Your task to perform on an android device: change the clock display to show seconds Image 0: 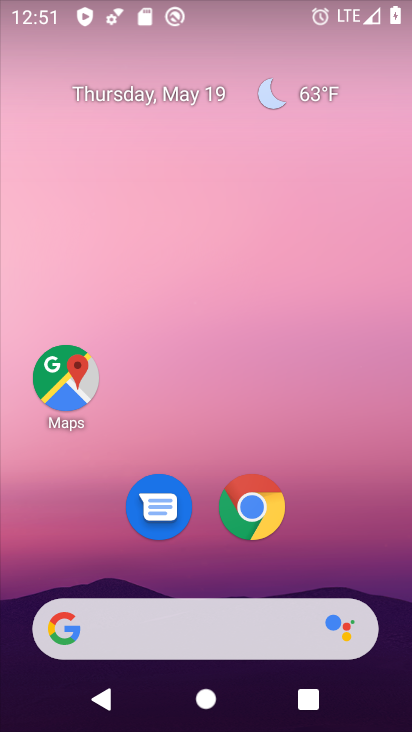
Step 0: drag from (252, 571) to (347, 129)
Your task to perform on an android device: change the clock display to show seconds Image 1: 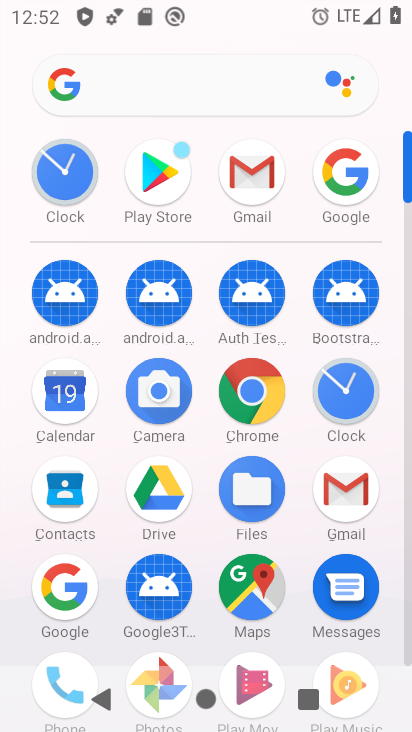
Step 1: click (346, 381)
Your task to perform on an android device: change the clock display to show seconds Image 2: 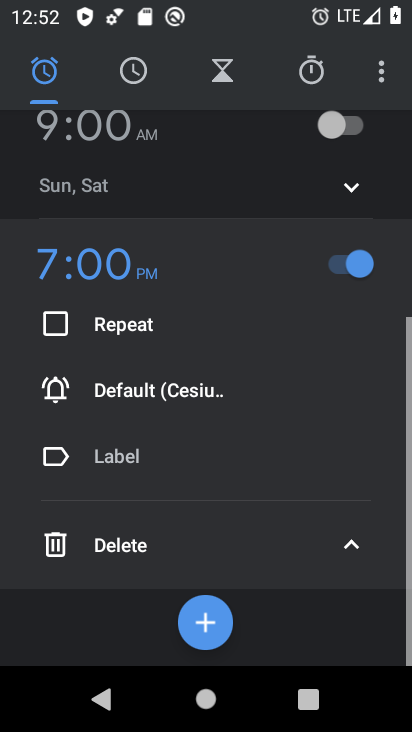
Step 2: click (380, 72)
Your task to perform on an android device: change the clock display to show seconds Image 3: 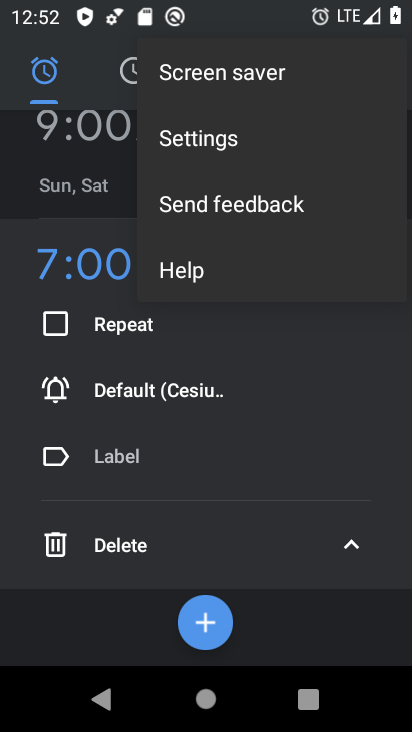
Step 3: click (178, 134)
Your task to perform on an android device: change the clock display to show seconds Image 4: 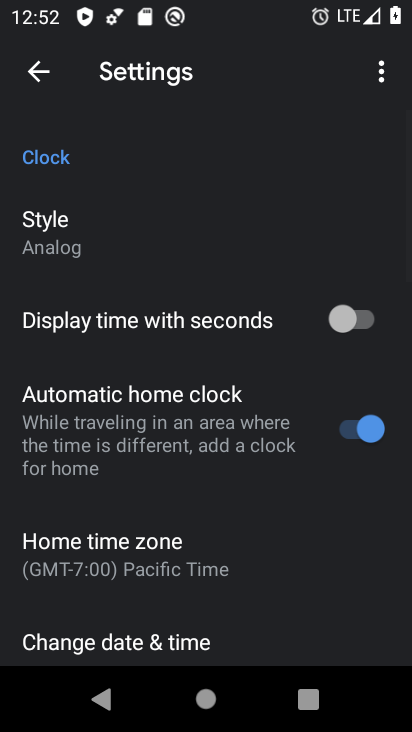
Step 4: click (375, 319)
Your task to perform on an android device: change the clock display to show seconds Image 5: 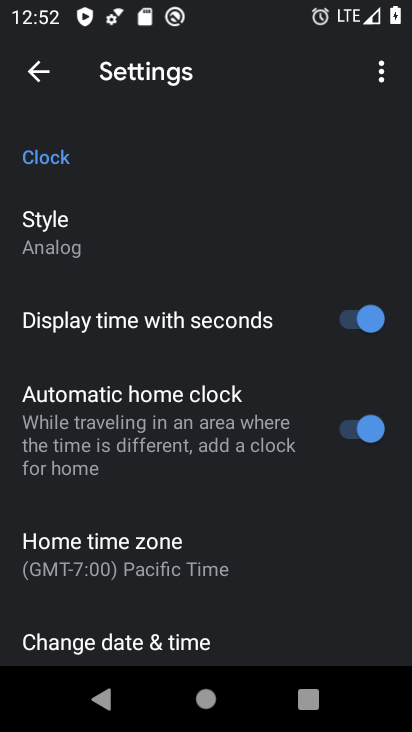
Step 5: task complete